Your task to perform on an android device: find photos in the google photos app Image 0: 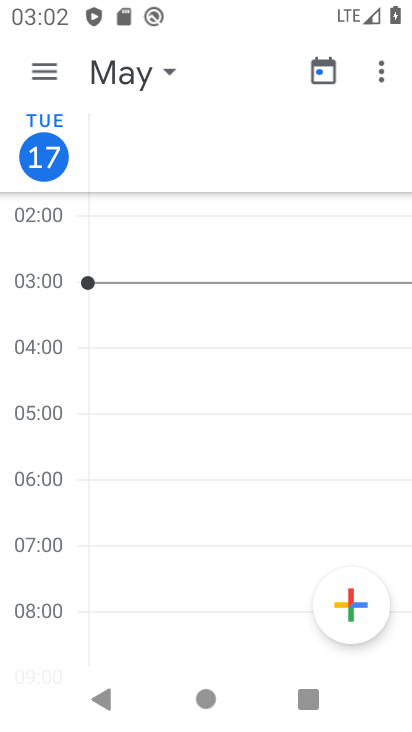
Step 0: press home button
Your task to perform on an android device: find photos in the google photos app Image 1: 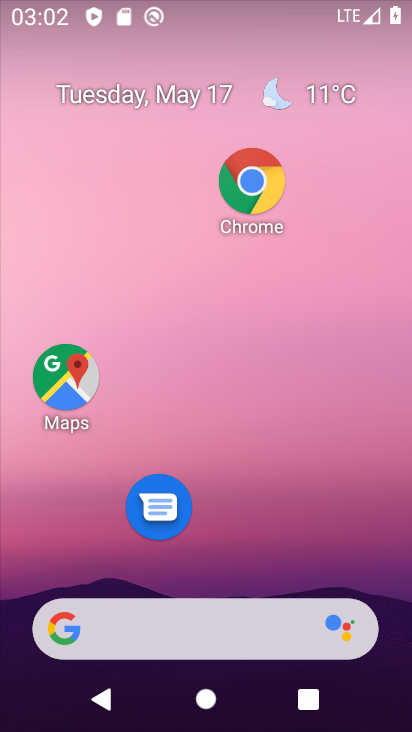
Step 1: drag from (233, 553) to (248, 111)
Your task to perform on an android device: find photos in the google photos app Image 2: 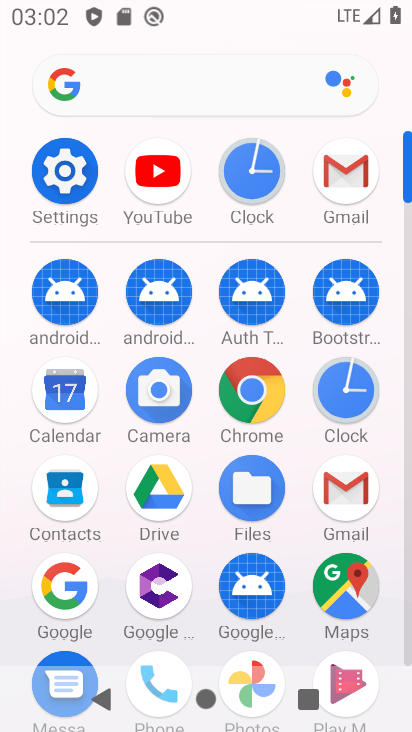
Step 2: click (256, 654)
Your task to perform on an android device: find photos in the google photos app Image 3: 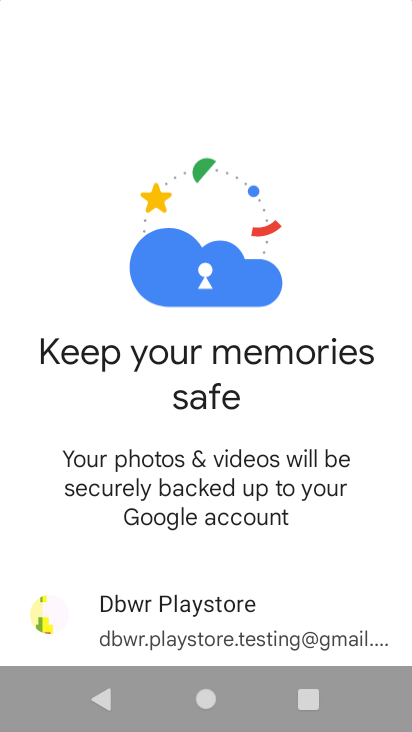
Step 3: task complete